Your task to perform on an android device: toggle wifi Image 0: 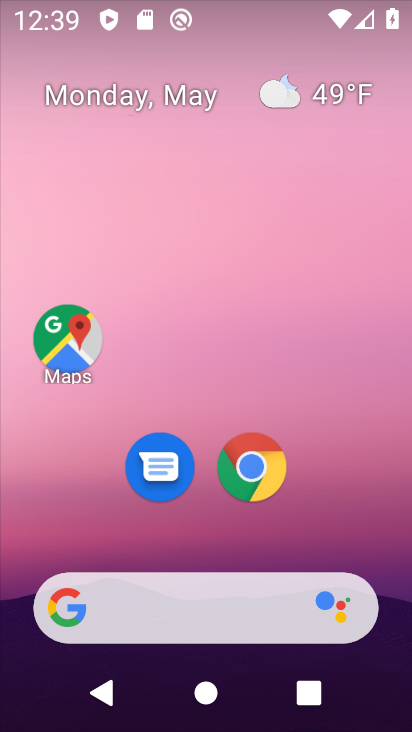
Step 0: drag from (332, 520) to (294, 73)
Your task to perform on an android device: toggle wifi Image 1: 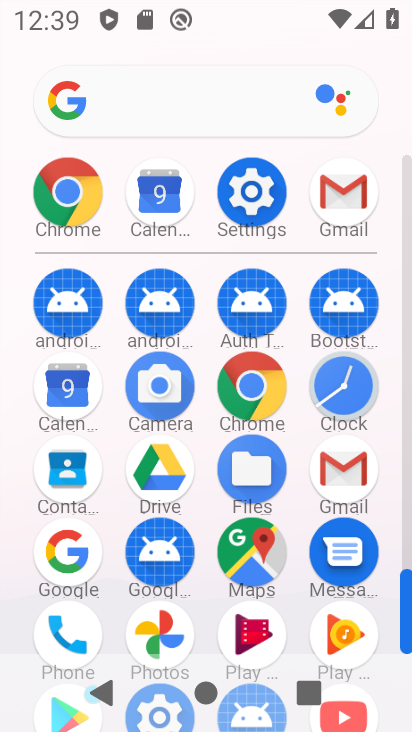
Step 1: click (267, 178)
Your task to perform on an android device: toggle wifi Image 2: 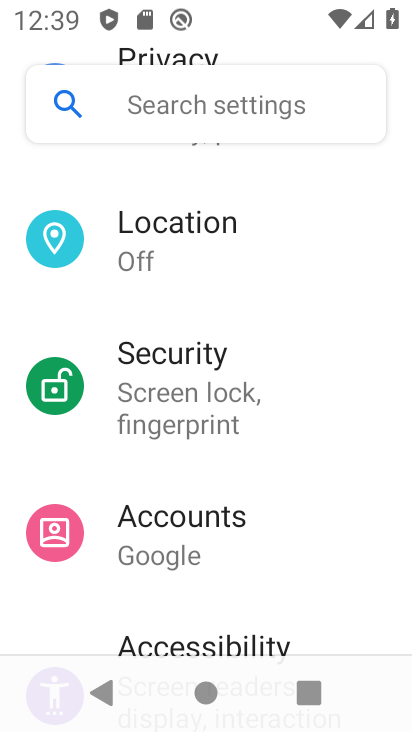
Step 2: drag from (278, 211) to (286, 567)
Your task to perform on an android device: toggle wifi Image 3: 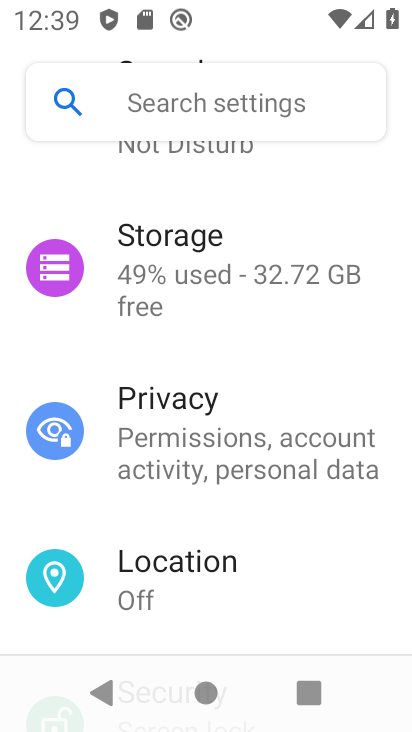
Step 3: drag from (241, 301) to (327, 615)
Your task to perform on an android device: toggle wifi Image 4: 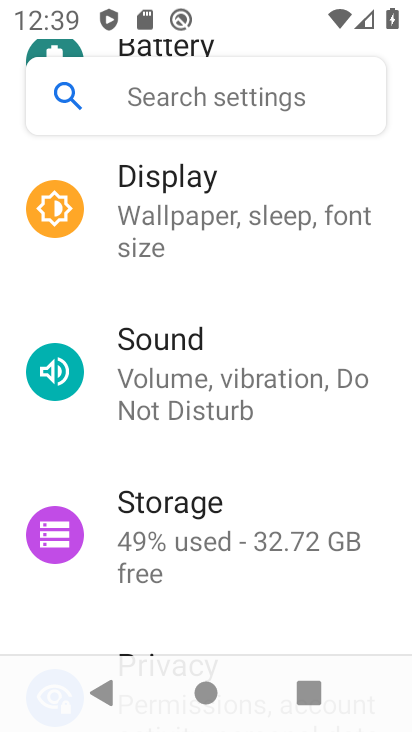
Step 4: drag from (246, 196) to (344, 581)
Your task to perform on an android device: toggle wifi Image 5: 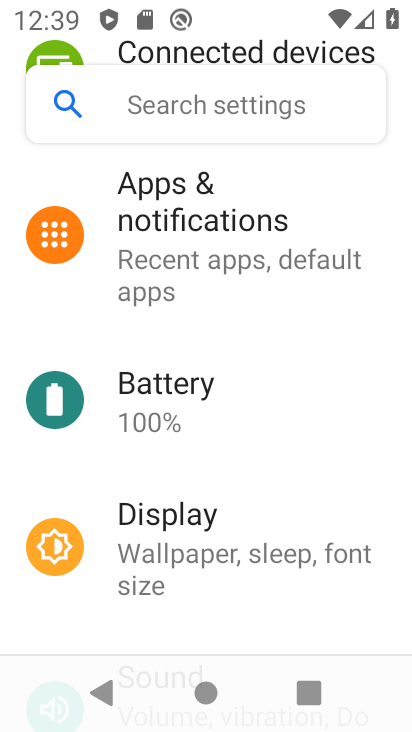
Step 5: drag from (200, 206) to (326, 629)
Your task to perform on an android device: toggle wifi Image 6: 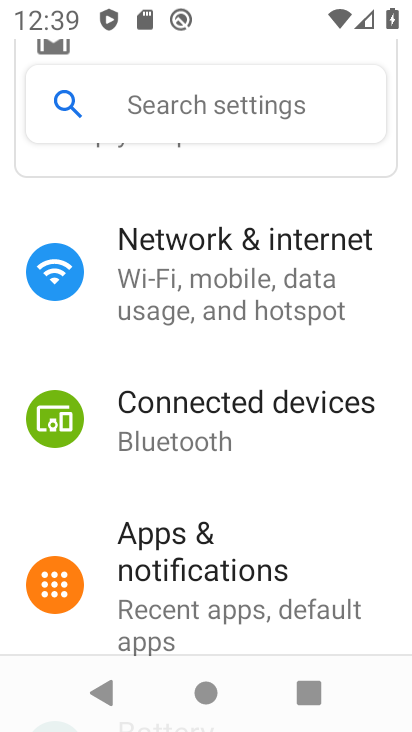
Step 6: click (219, 269)
Your task to perform on an android device: toggle wifi Image 7: 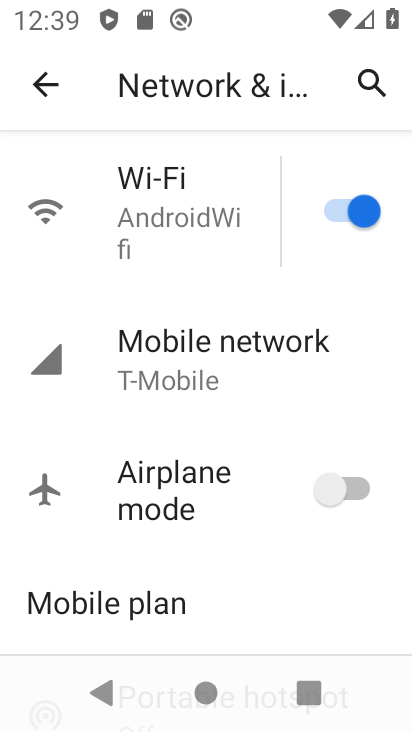
Step 7: click (174, 208)
Your task to perform on an android device: toggle wifi Image 8: 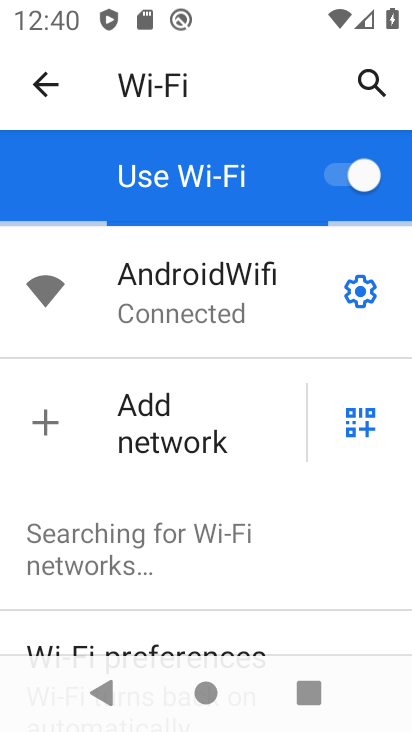
Step 8: task complete